Your task to perform on an android device: Open battery settings Image 0: 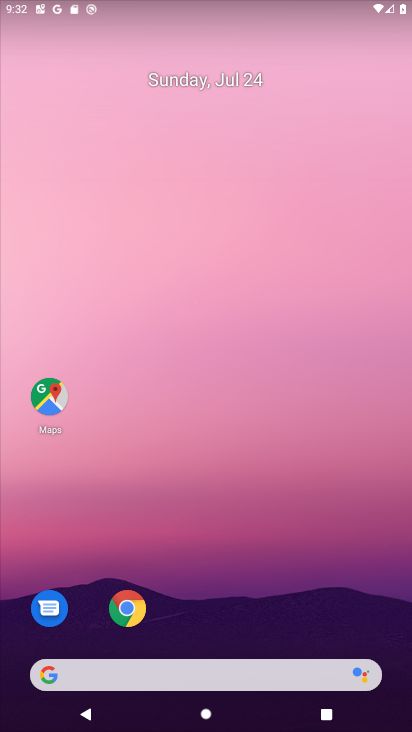
Step 0: drag from (168, 8) to (216, 697)
Your task to perform on an android device: Open battery settings Image 1: 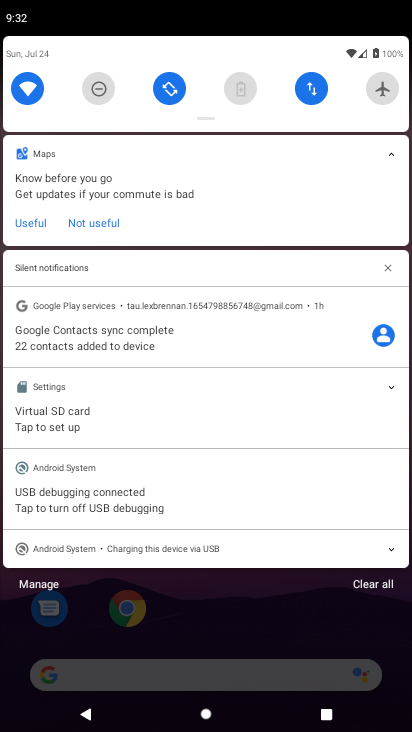
Step 1: click (229, 89)
Your task to perform on an android device: Open battery settings Image 2: 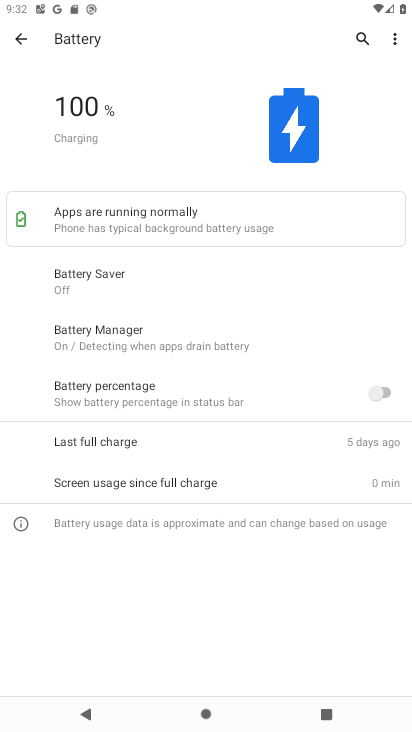
Step 2: task complete